Your task to perform on an android device: change alarm snooze length Image 0: 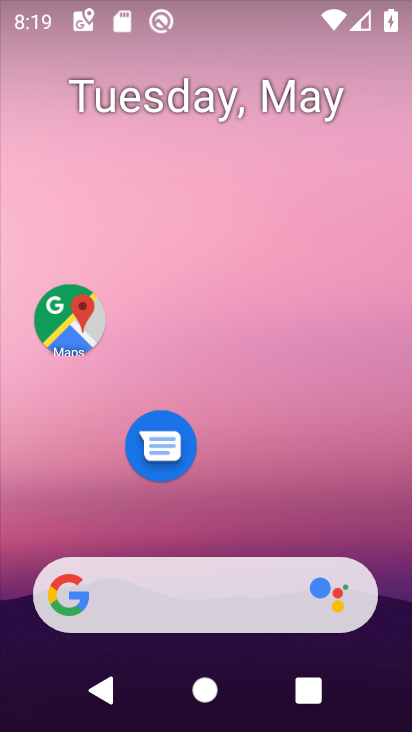
Step 0: drag from (212, 537) to (274, 19)
Your task to perform on an android device: change alarm snooze length Image 1: 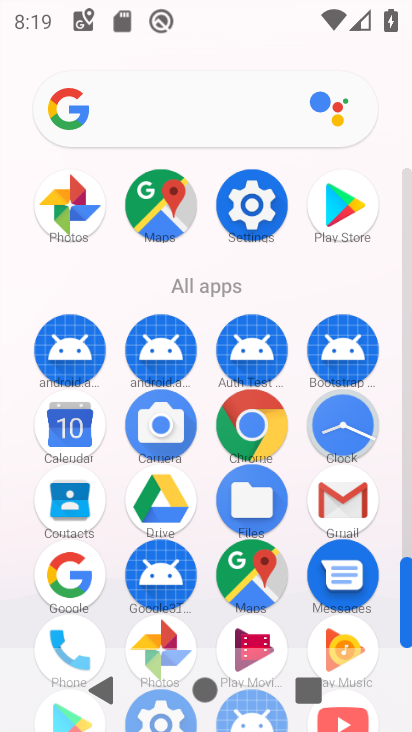
Step 1: click (339, 433)
Your task to perform on an android device: change alarm snooze length Image 2: 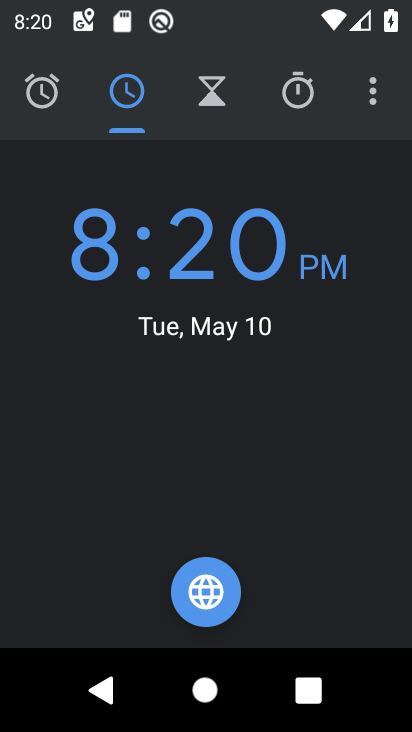
Step 2: click (380, 91)
Your task to perform on an android device: change alarm snooze length Image 3: 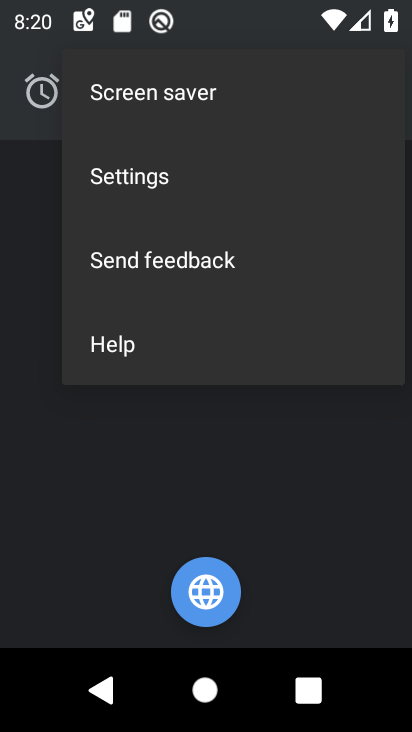
Step 3: click (140, 170)
Your task to perform on an android device: change alarm snooze length Image 4: 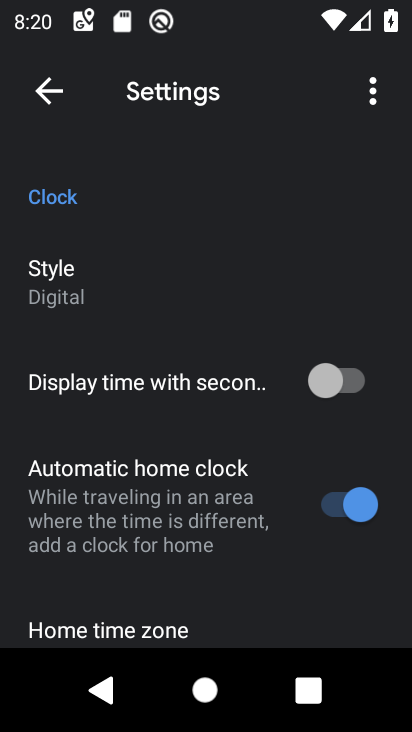
Step 4: drag from (162, 468) to (132, 134)
Your task to perform on an android device: change alarm snooze length Image 5: 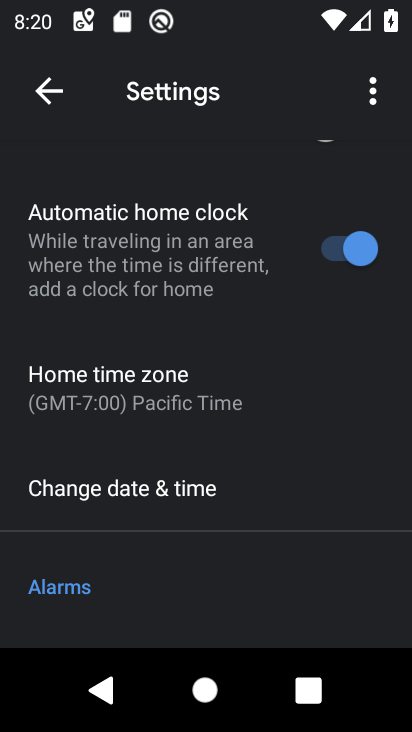
Step 5: drag from (162, 529) to (127, 81)
Your task to perform on an android device: change alarm snooze length Image 6: 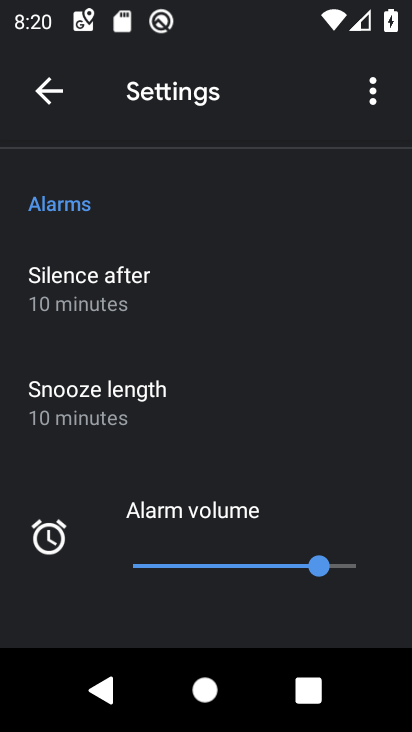
Step 6: click (132, 390)
Your task to perform on an android device: change alarm snooze length Image 7: 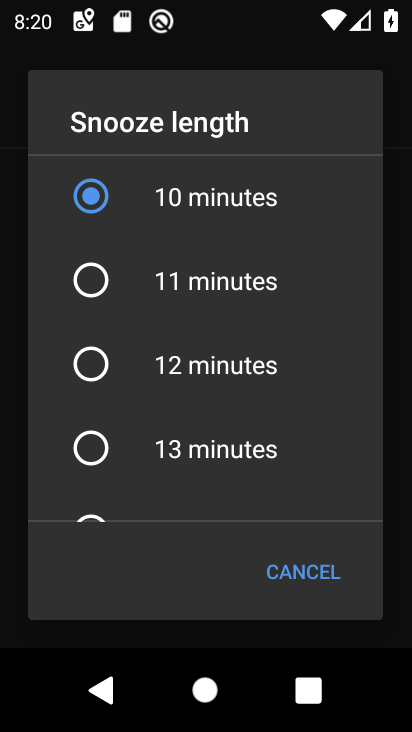
Step 7: click (179, 259)
Your task to perform on an android device: change alarm snooze length Image 8: 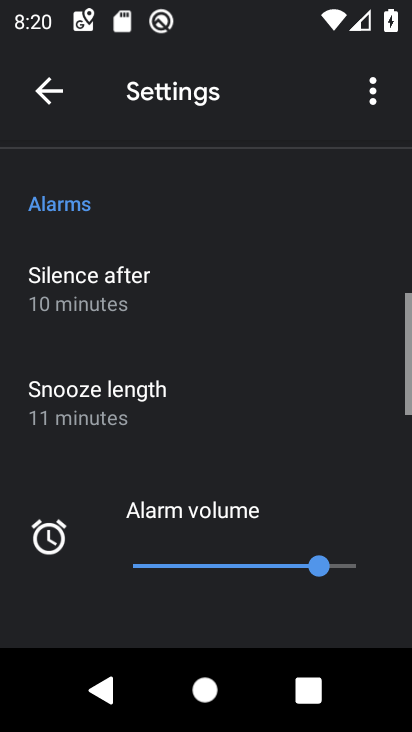
Step 8: task complete